Your task to perform on an android device: Turn on the flashlight Image 0: 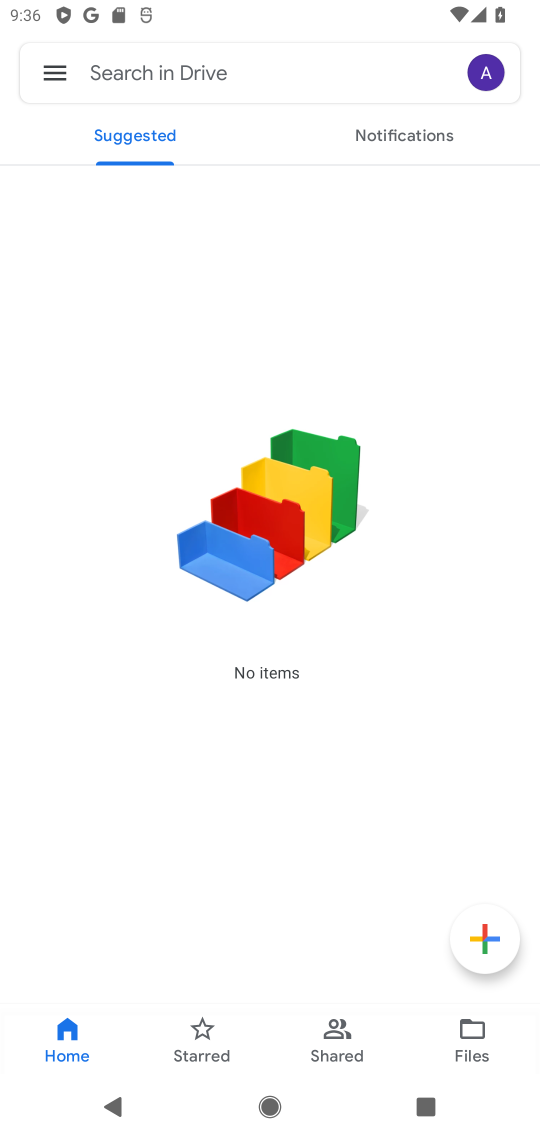
Step 0: press home button
Your task to perform on an android device: Turn on the flashlight Image 1: 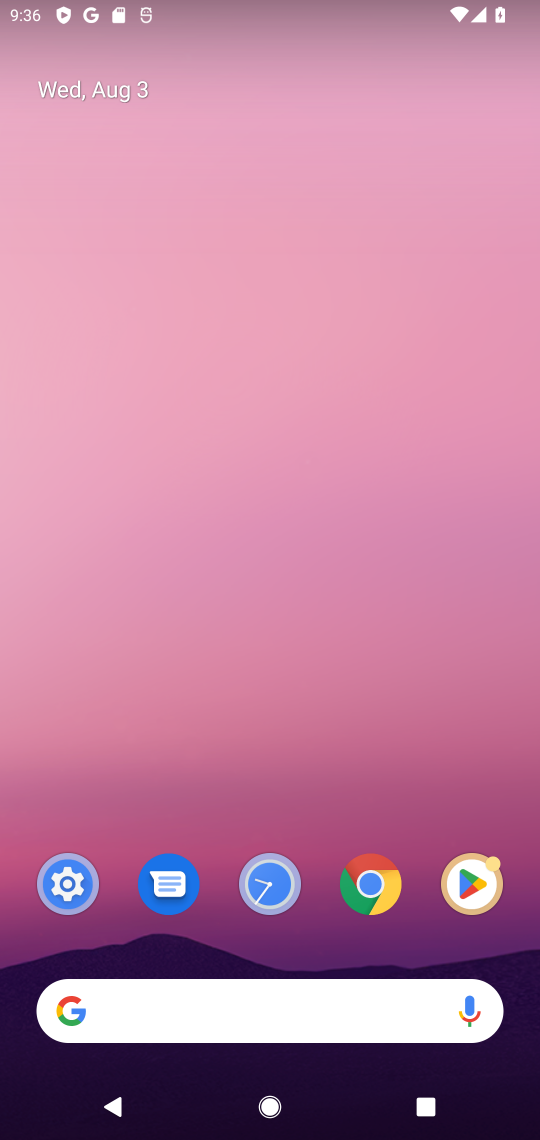
Step 1: drag from (264, 1) to (287, 906)
Your task to perform on an android device: Turn on the flashlight Image 2: 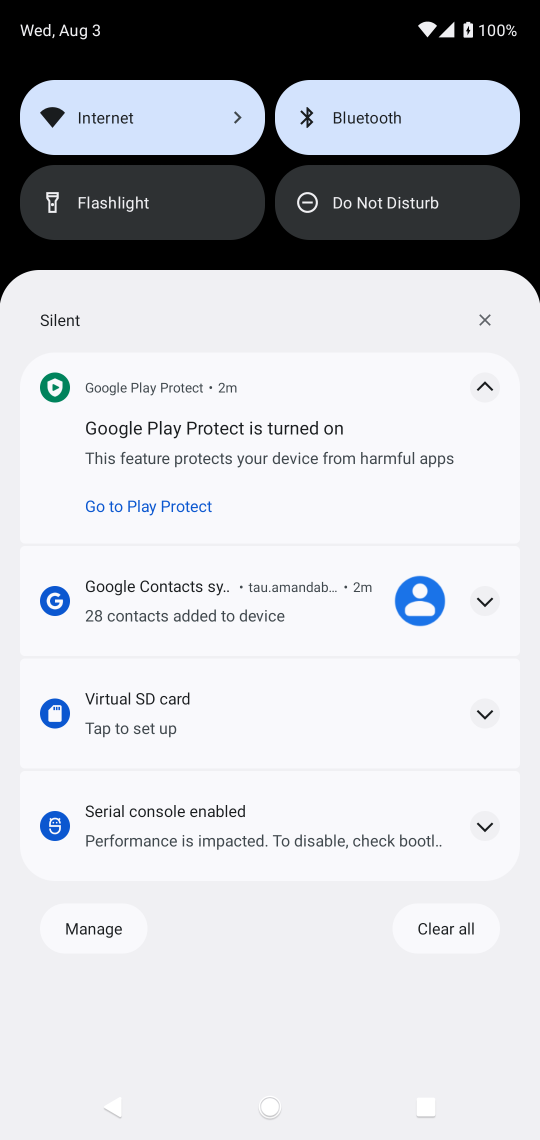
Step 2: click (145, 210)
Your task to perform on an android device: Turn on the flashlight Image 3: 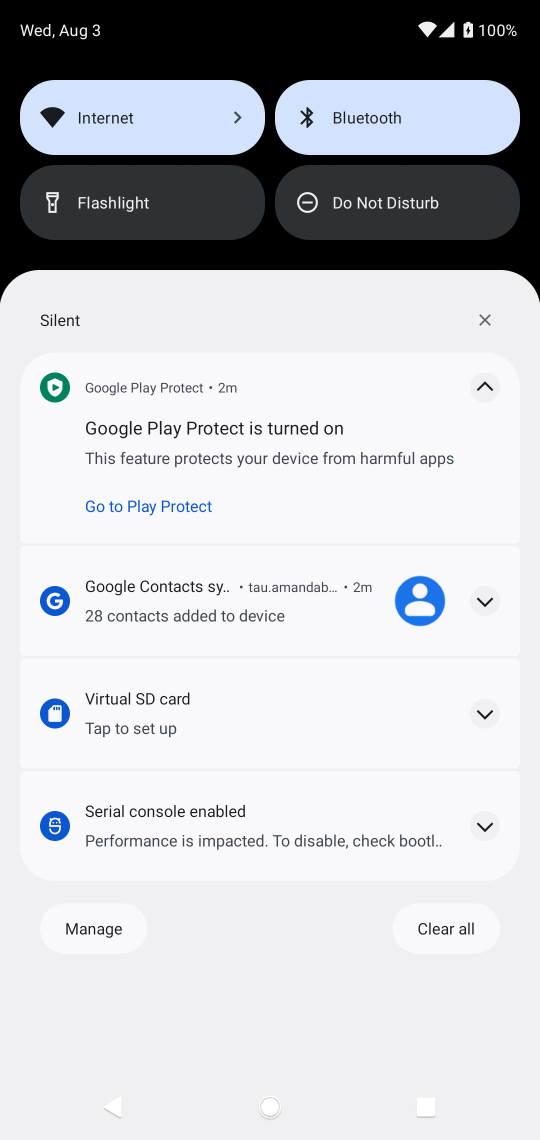
Step 3: task complete